Your task to perform on an android device: Open the map Image 0: 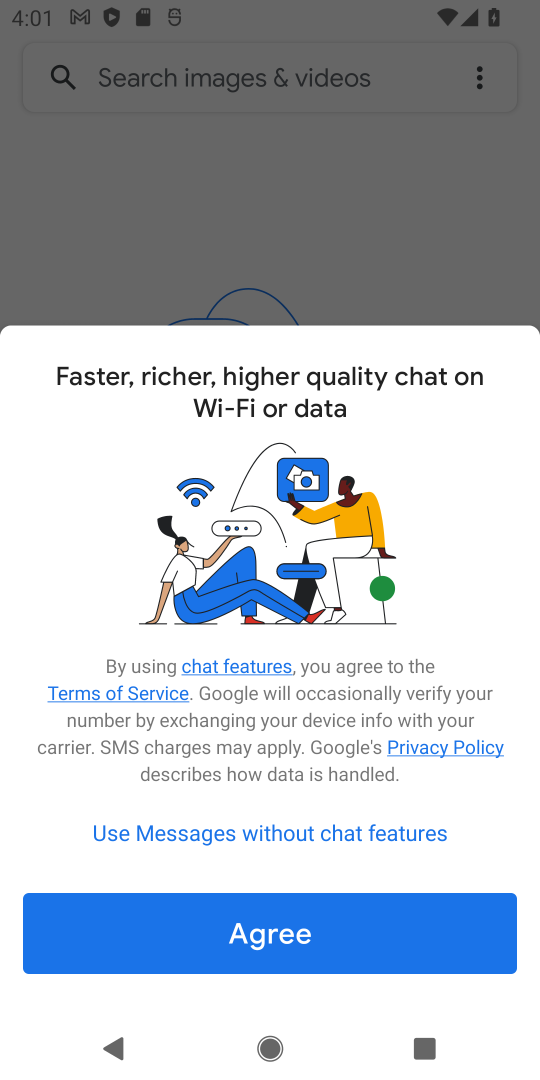
Step 0: press home button
Your task to perform on an android device: Open the map Image 1: 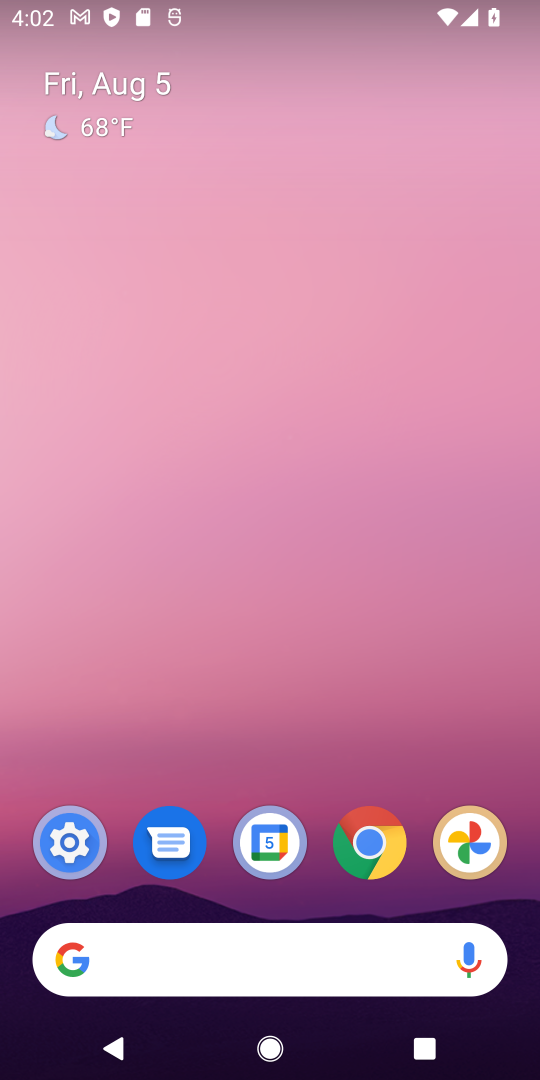
Step 1: drag from (351, 731) to (323, 196)
Your task to perform on an android device: Open the map Image 2: 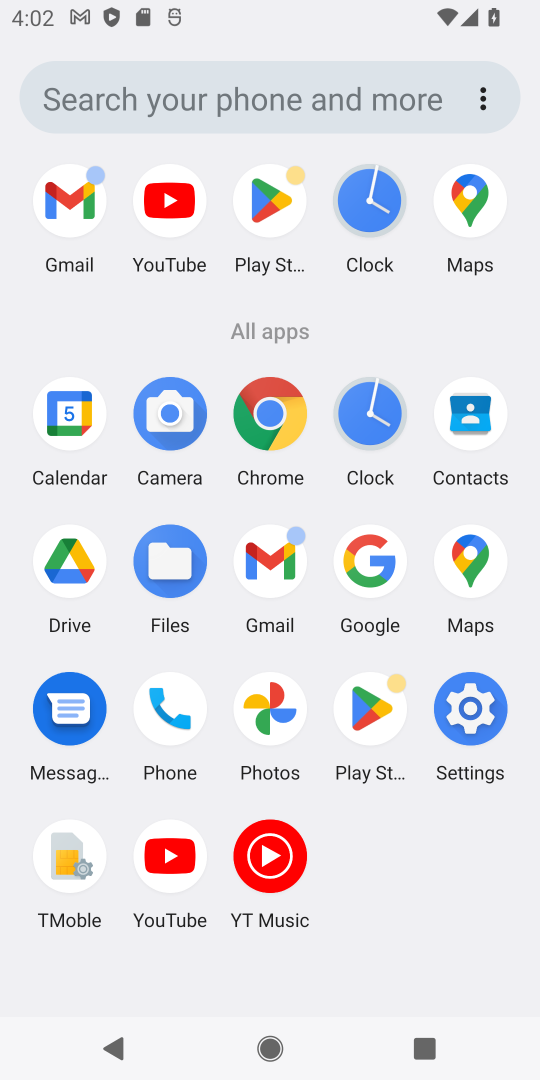
Step 2: click (457, 583)
Your task to perform on an android device: Open the map Image 3: 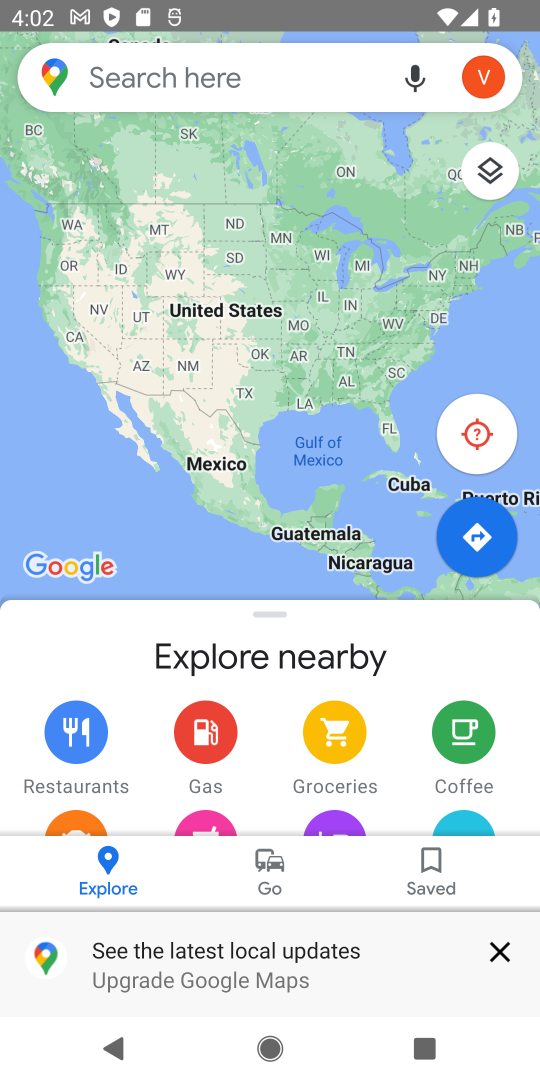
Step 3: task complete